Your task to perform on an android device: open app "Indeed Job Search" (install if not already installed) Image 0: 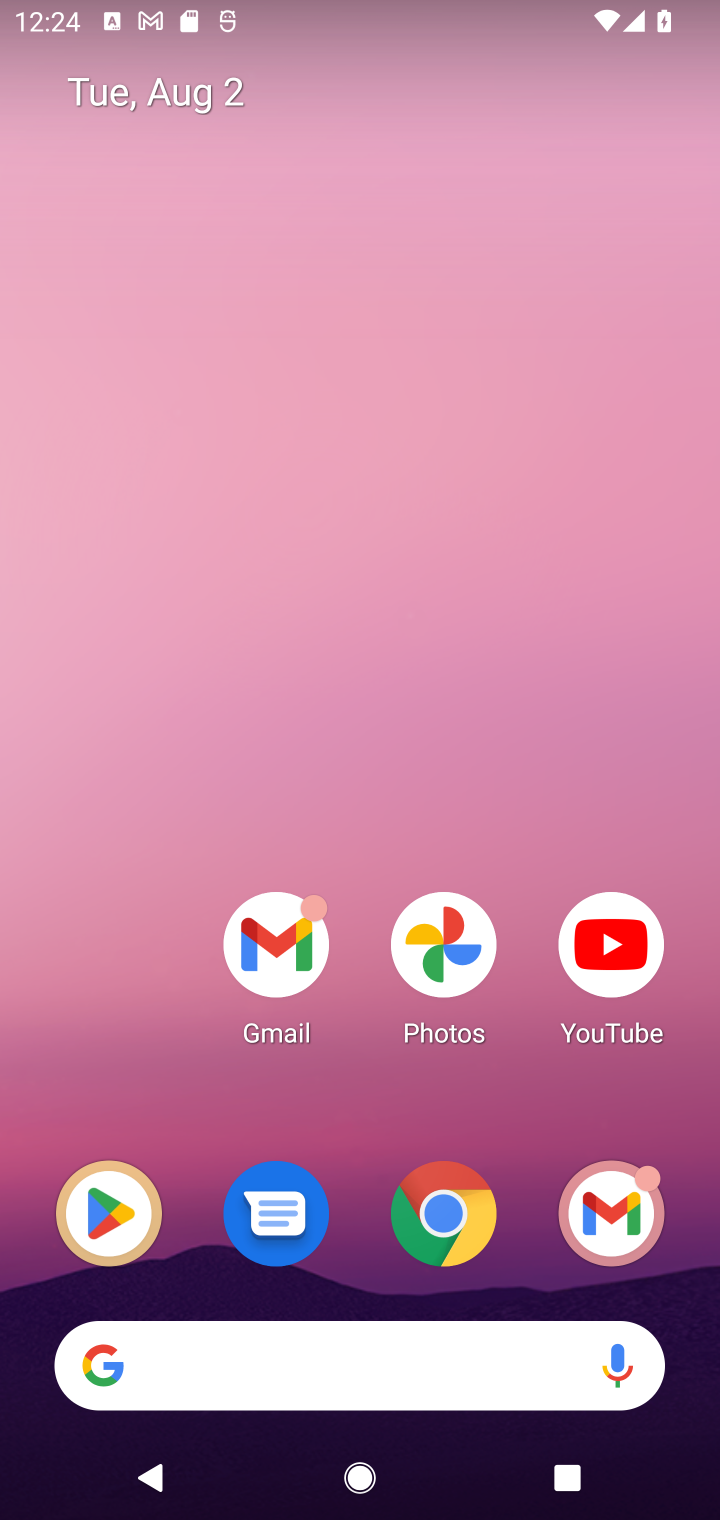
Step 0: click (110, 1229)
Your task to perform on an android device: open app "Indeed Job Search" (install if not already installed) Image 1: 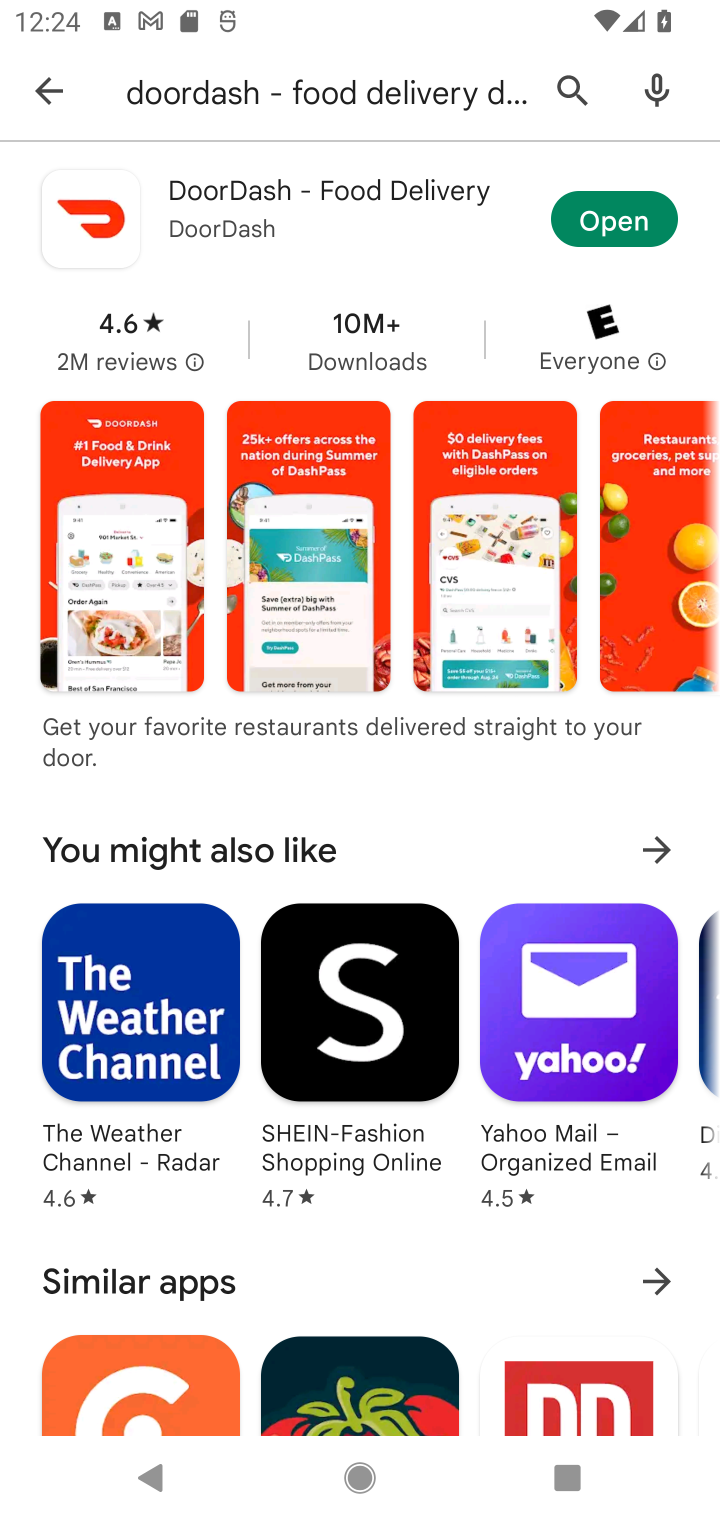
Step 1: click (48, 86)
Your task to perform on an android device: open app "Indeed Job Search" (install if not already installed) Image 2: 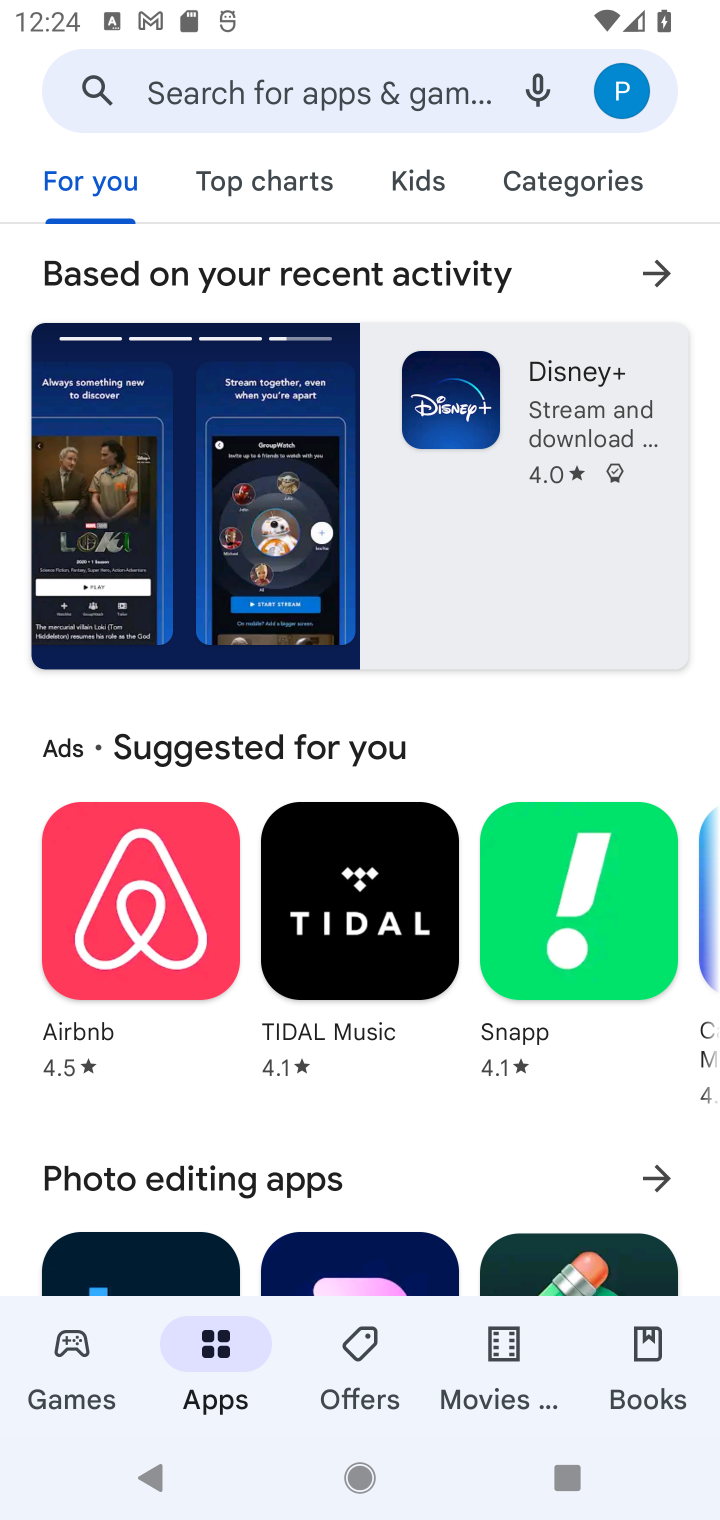
Step 2: click (135, 84)
Your task to perform on an android device: open app "Indeed Job Search" (install if not already installed) Image 3: 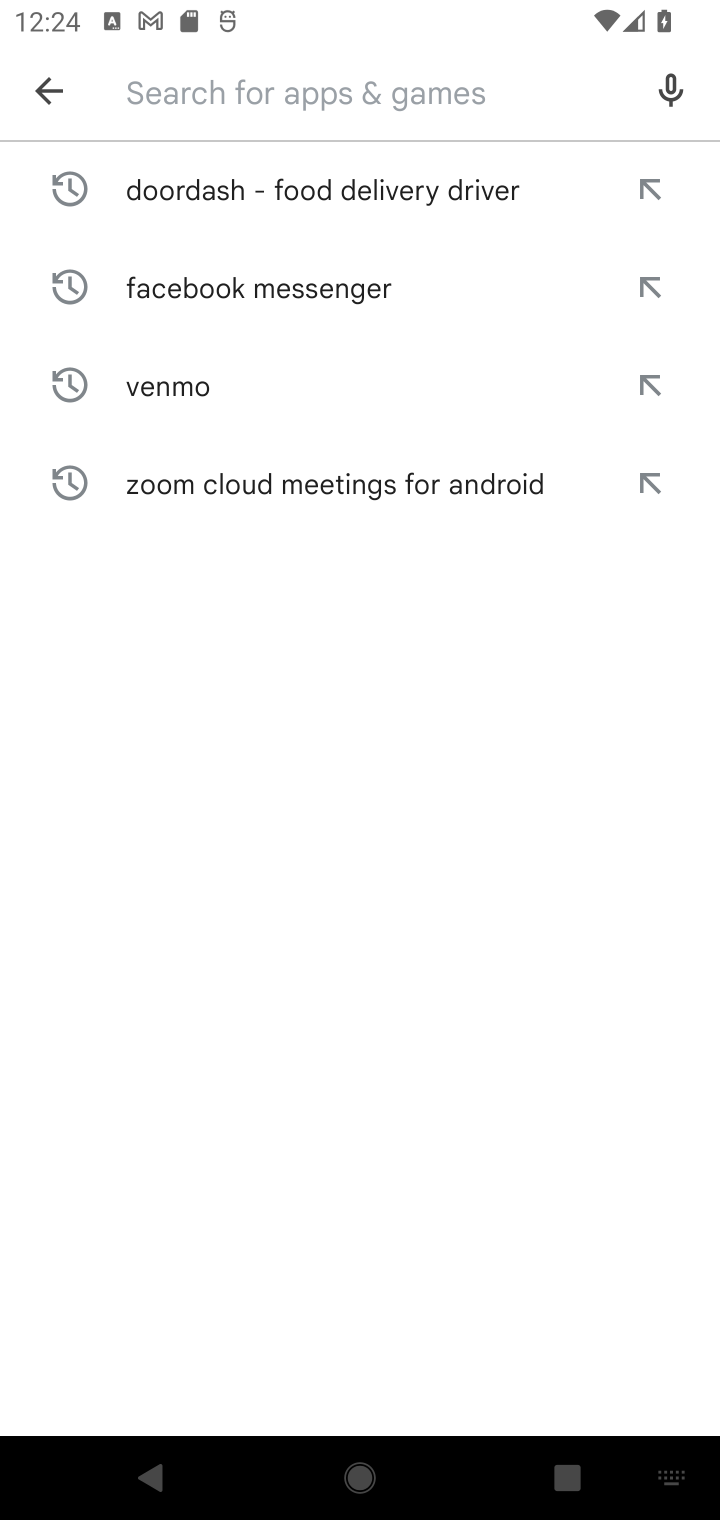
Step 3: type "Indeed Job Search"
Your task to perform on an android device: open app "Indeed Job Search" (install if not already installed) Image 4: 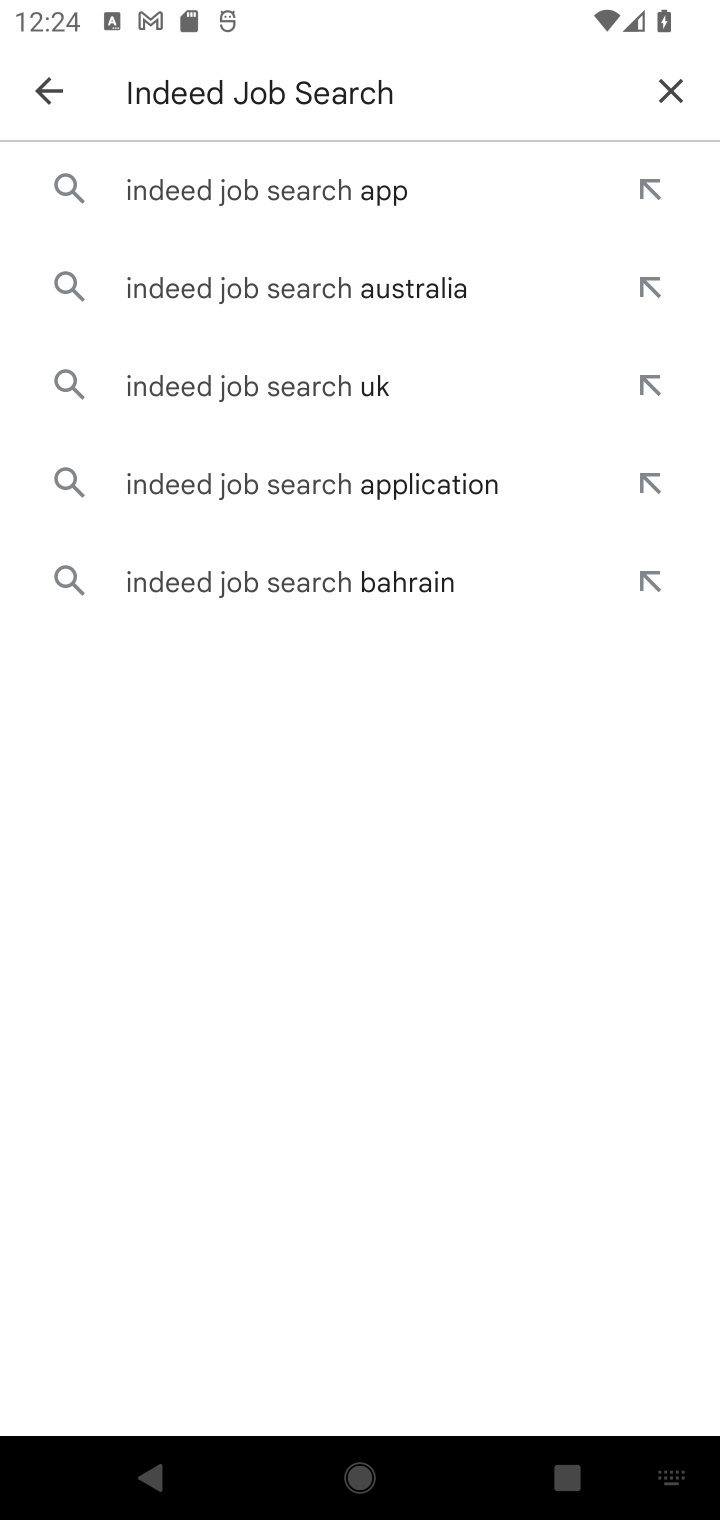
Step 4: click (261, 192)
Your task to perform on an android device: open app "Indeed Job Search" (install if not already installed) Image 5: 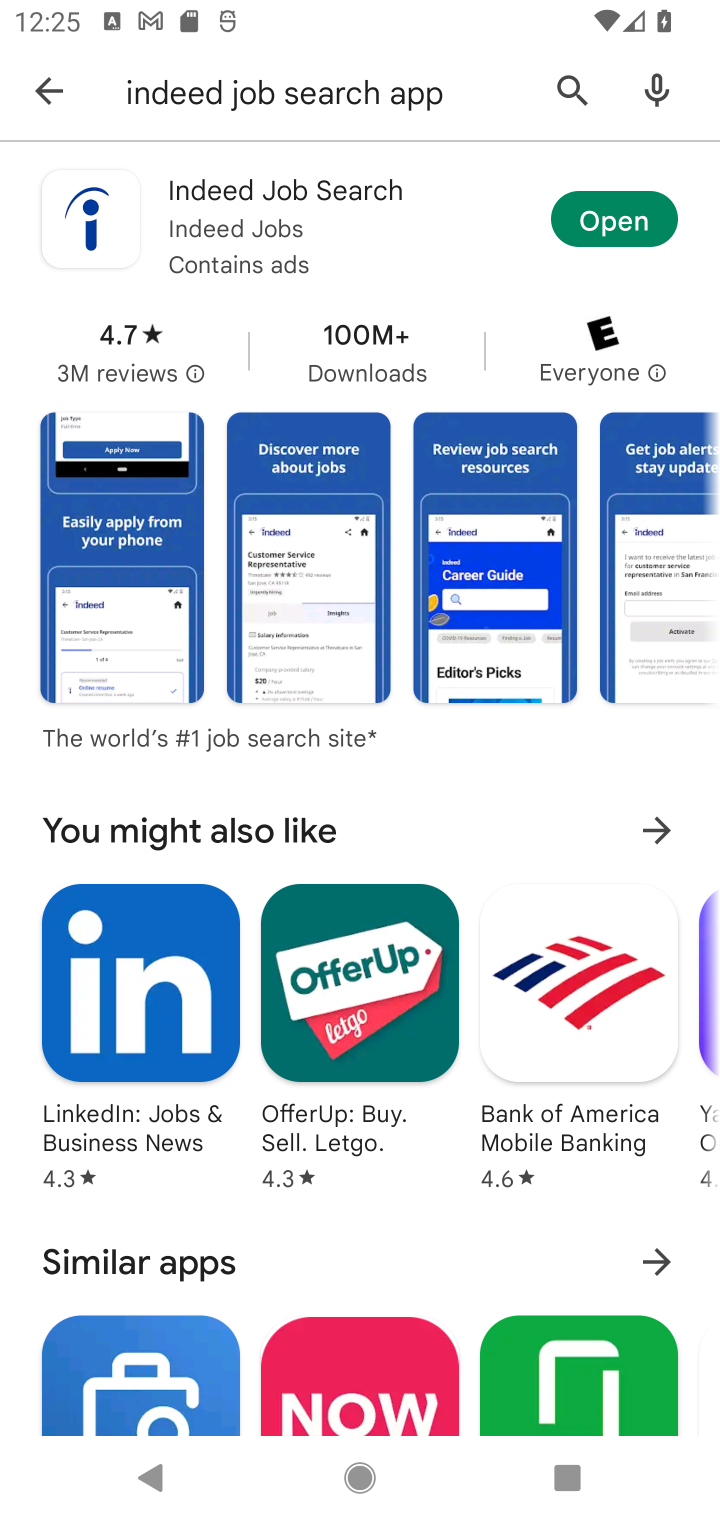
Step 5: click (641, 213)
Your task to perform on an android device: open app "Indeed Job Search" (install if not already installed) Image 6: 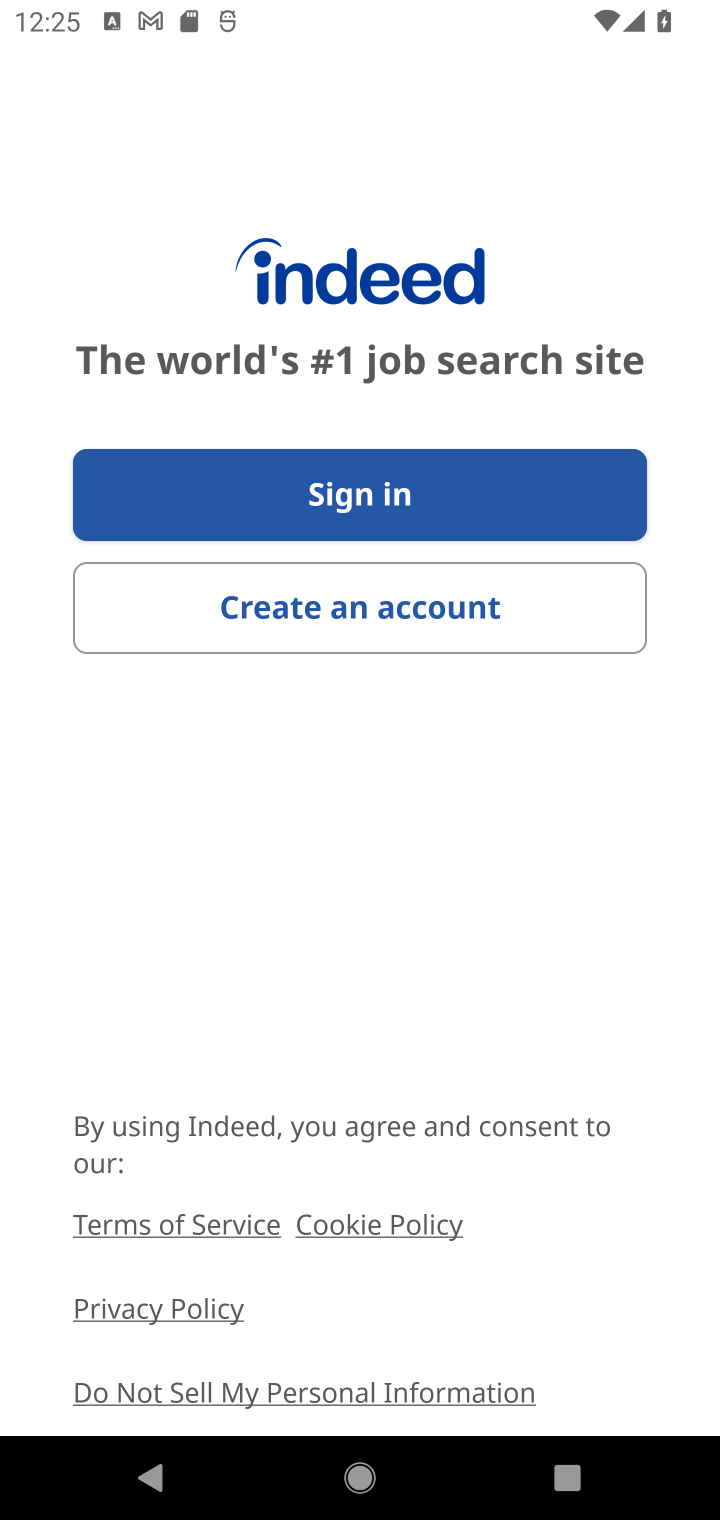
Step 6: task complete